Your task to perform on an android device: Open Maps and search for coffee Image 0: 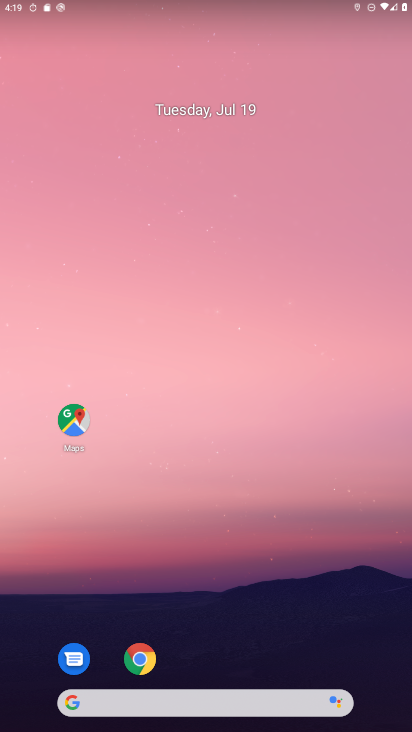
Step 0: drag from (245, 584) to (265, 3)
Your task to perform on an android device: Open Maps and search for coffee Image 1: 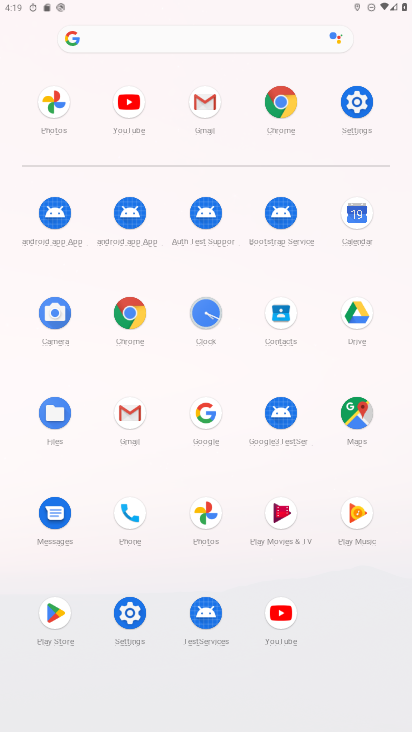
Step 1: click (360, 420)
Your task to perform on an android device: Open Maps and search for coffee Image 2: 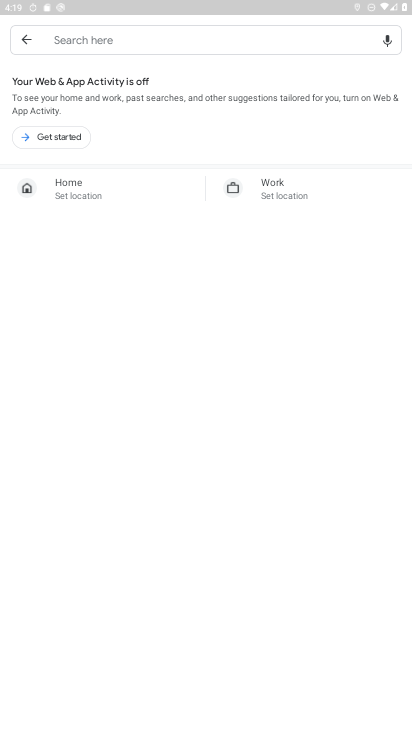
Step 2: click (95, 43)
Your task to perform on an android device: Open Maps and search for coffee Image 3: 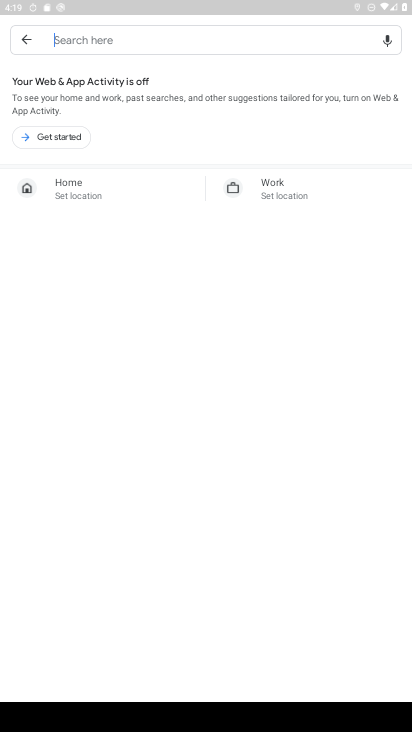
Step 3: type "coffee"
Your task to perform on an android device: Open Maps and search for coffee Image 4: 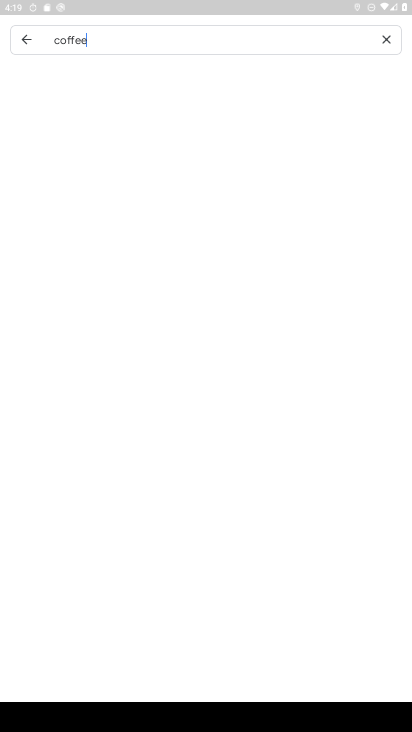
Step 4: press enter
Your task to perform on an android device: Open Maps and search for coffee Image 5: 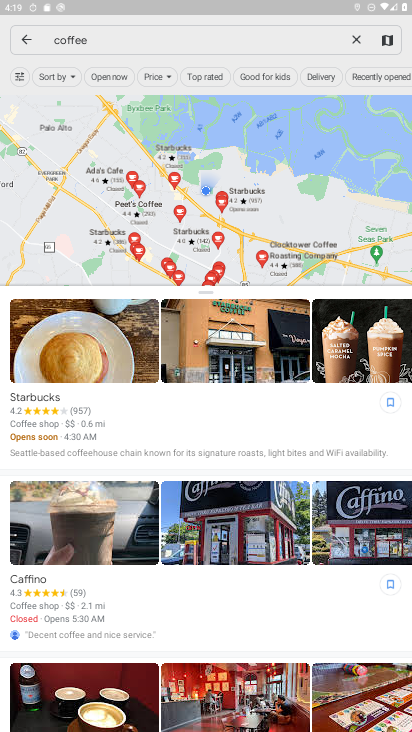
Step 5: task complete